Your task to perform on an android device: change keyboard looks Image 0: 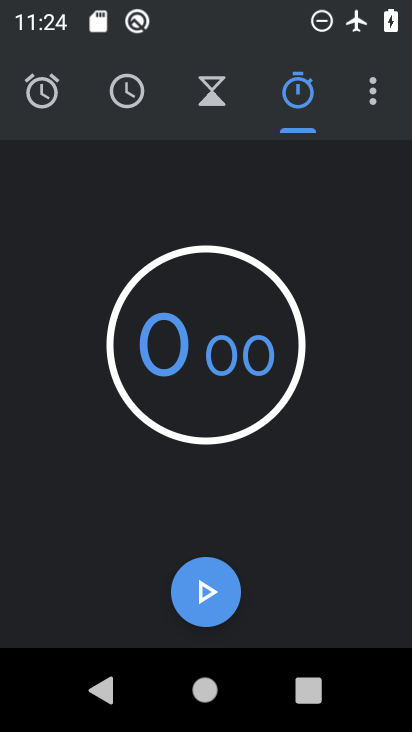
Step 0: press home button
Your task to perform on an android device: change keyboard looks Image 1: 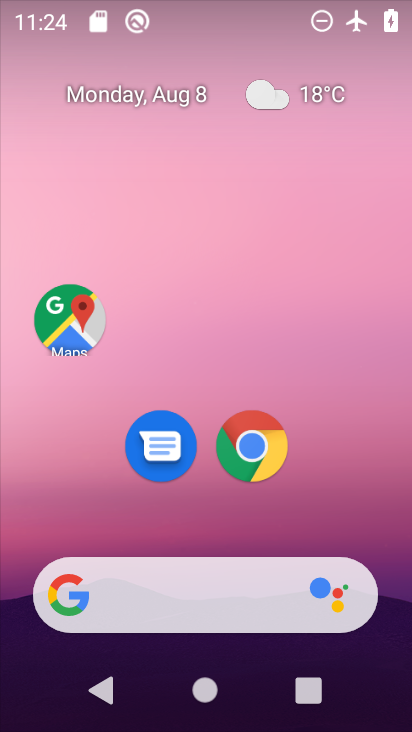
Step 1: drag from (391, 633) to (366, 122)
Your task to perform on an android device: change keyboard looks Image 2: 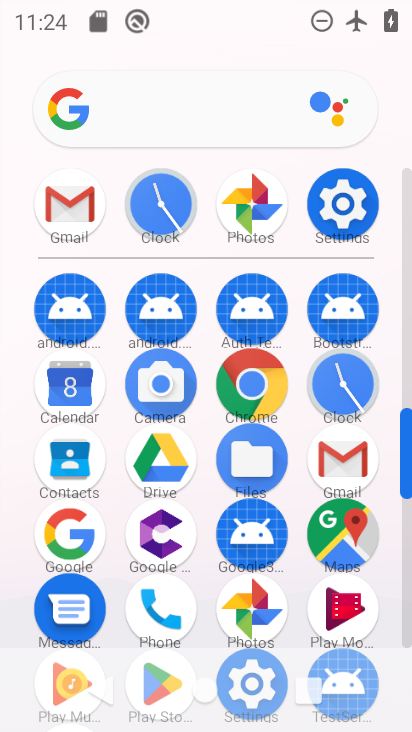
Step 2: click (408, 624)
Your task to perform on an android device: change keyboard looks Image 3: 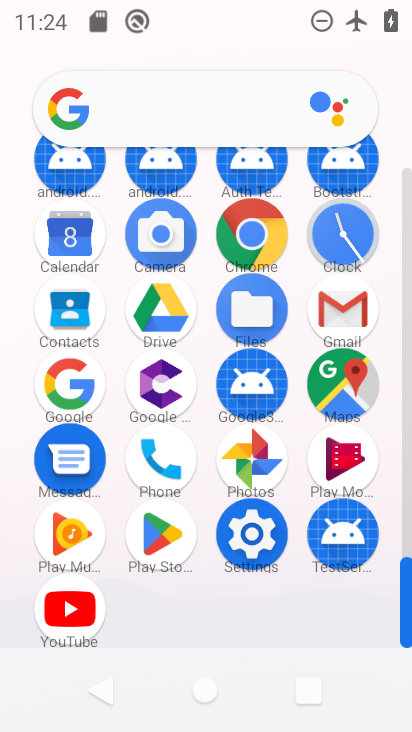
Step 3: click (252, 533)
Your task to perform on an android device: change keyboard looks Image 4: 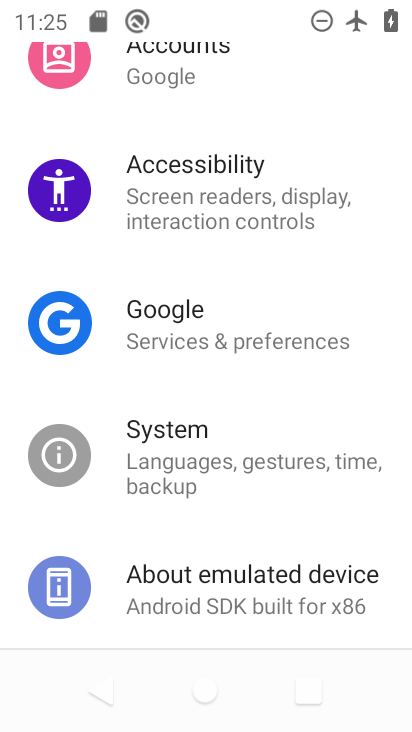
Step 4: click (199, 461)
Your task to perform on an android device: change keyboard looks Image 5: 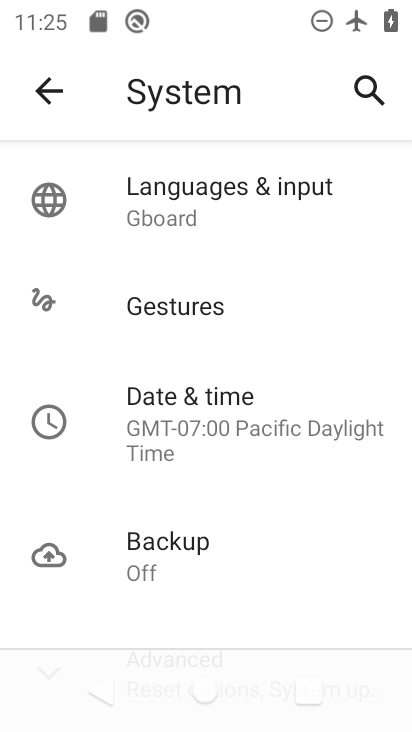
Step 5: click (177, 189)
Your task to perform on an android device: change keyboard looks Image 6: 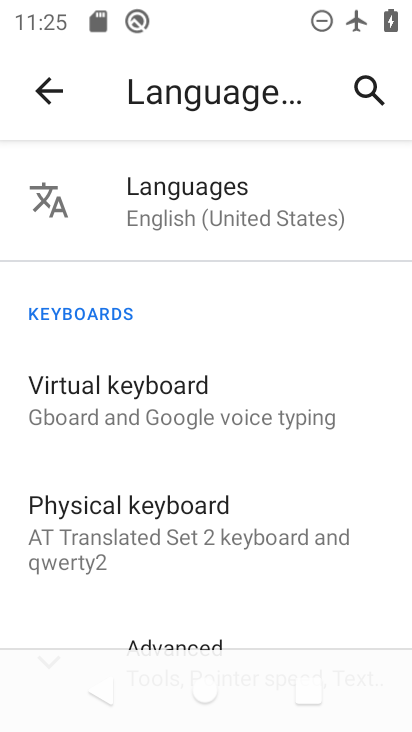
Step 6: click (152, 536)
Your task to perform on an android device: change keyboard looks Image 7: 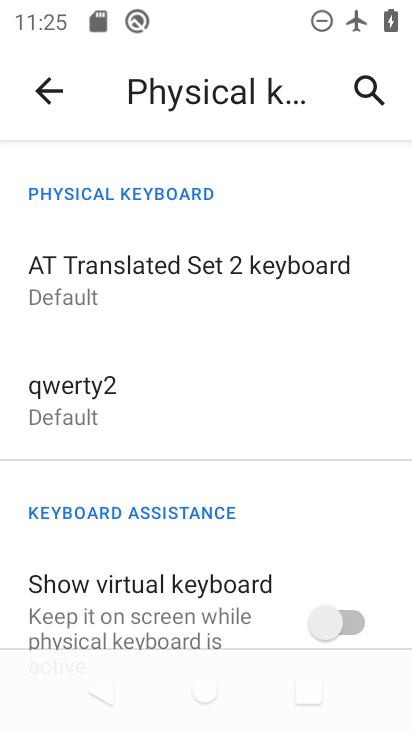
Step 7: click (72, 417)
Your task to perform on an android device: change keyboard looks Image 8: 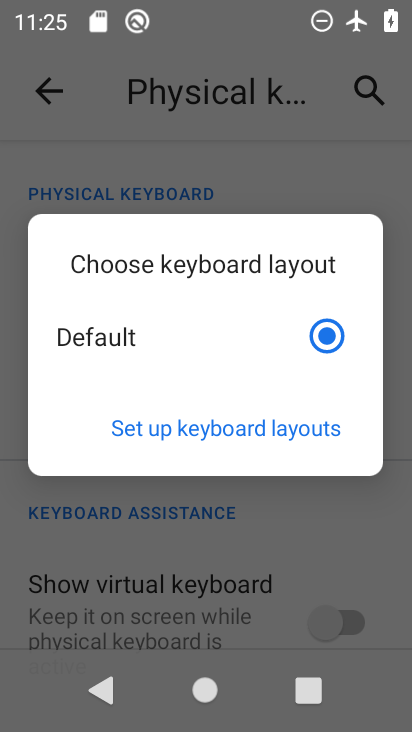
Step 8: click (239, 427)
Your task to perform on an android device: change keyboard looks Image 9: 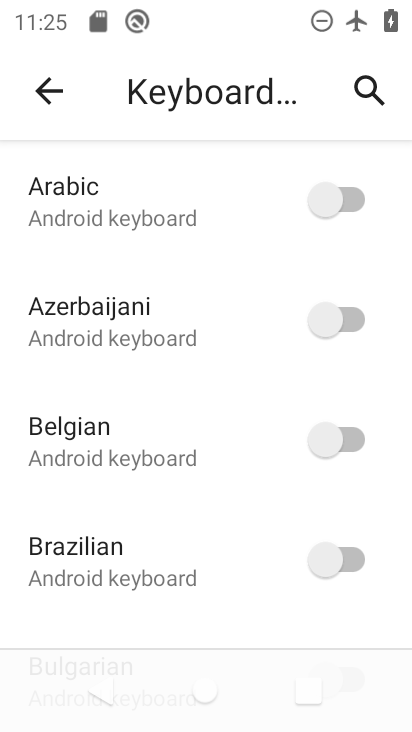
Step 9: drag from (298, 581) to (259, 240)
Your task to perform on an android device: change keyboard looks Image 10: 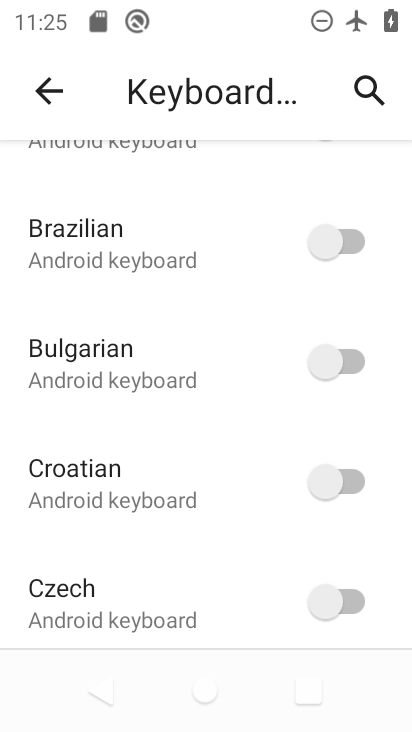
Step 10: drag from (266, 598) to (240, 204)
Your task to perform on an android device: change keyboard looks Image 11: 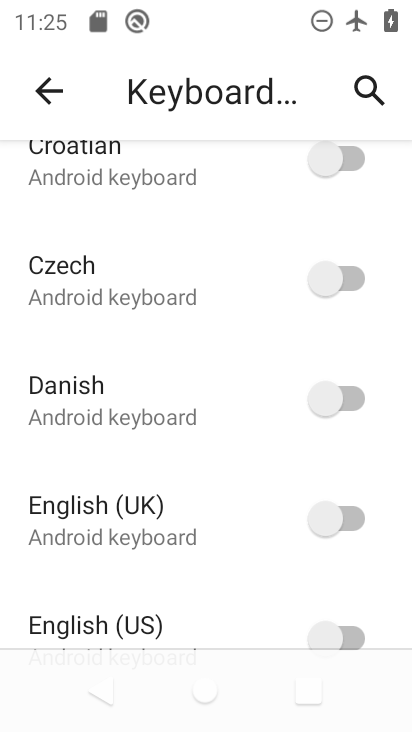
Step 11: click (352, 524)
Your task to perform on an android device: change keyboard looks Image 12: 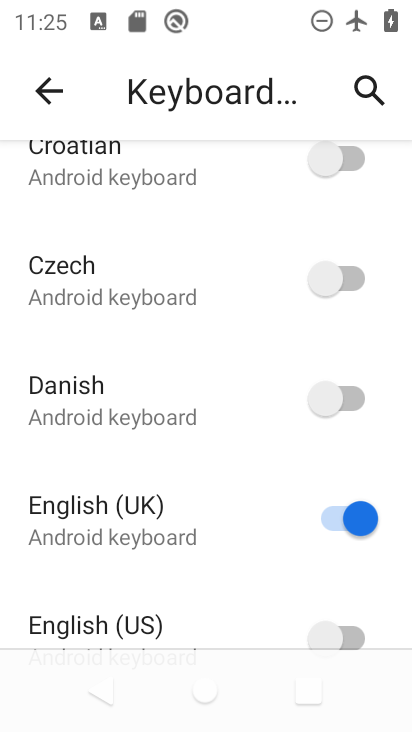
Step 12: task complete